Your task to perform on an android device: open app "WhatsApp Messenger" (install if not already installed) Image 0: 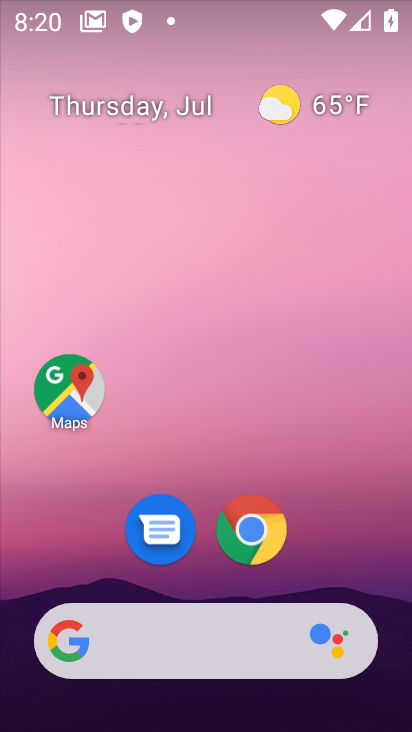
Step 0: drag from (343, 566) to (361, 40)
Your task to perform on an android device: open app "WhatsApp Messenger" (install if not already installed) Image 1: 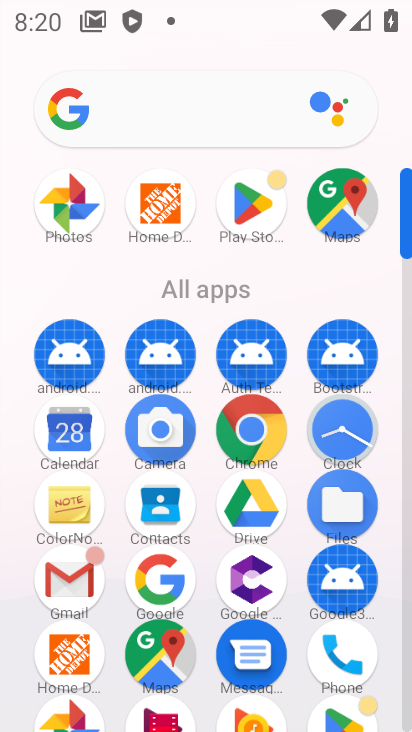
Step 1: click (242, 206)
Your task to perform on an android device: open app "WhatsApp Messenger" (install if not already installed) Image 2: 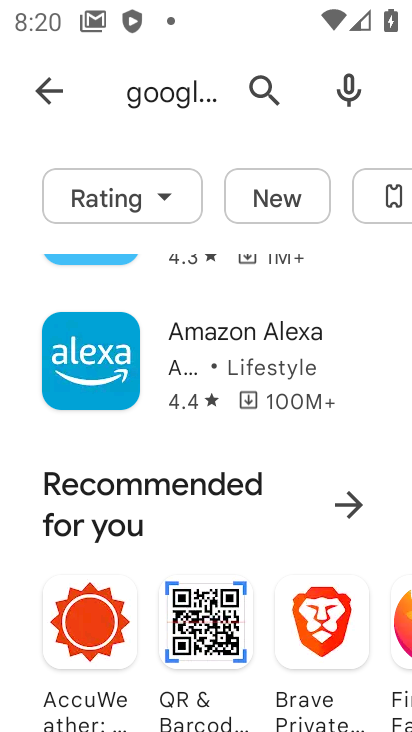
Step 2: click (253, 87)
Your task to perform on an android device: open app "WhatsApp Messenger" (install if not already installed) Image 3: 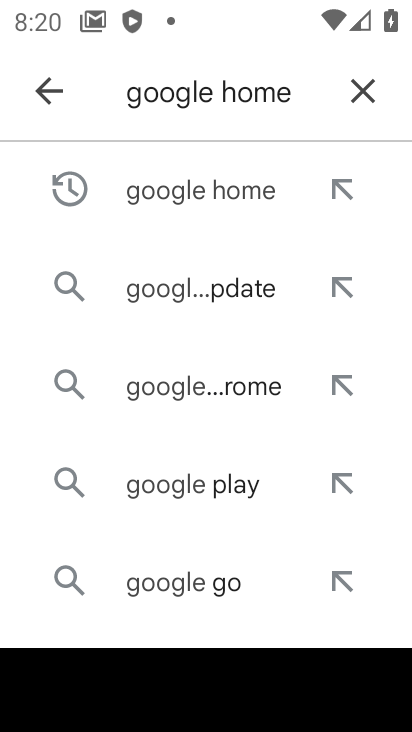
Step 3: click (347, 98)
Your task to perform on an android device: open app "WhatsApp Messenger" (install if not already installed) Image 4: 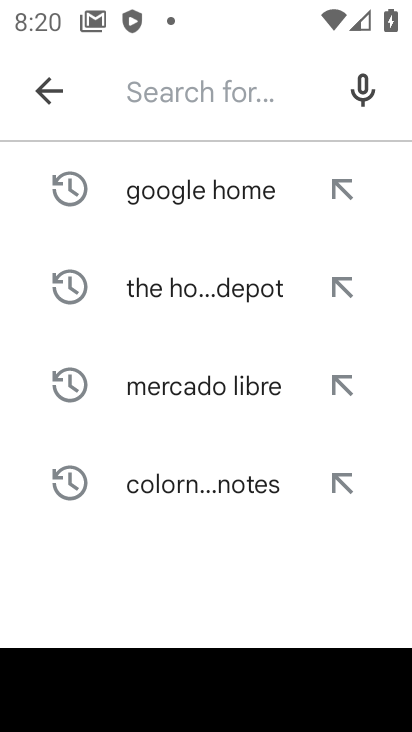
Step 4: type "WhatsApp Messenger"
Your task to perform on an android device: open app "WhatsApp Messenger" (install if not already installed) Image 5: 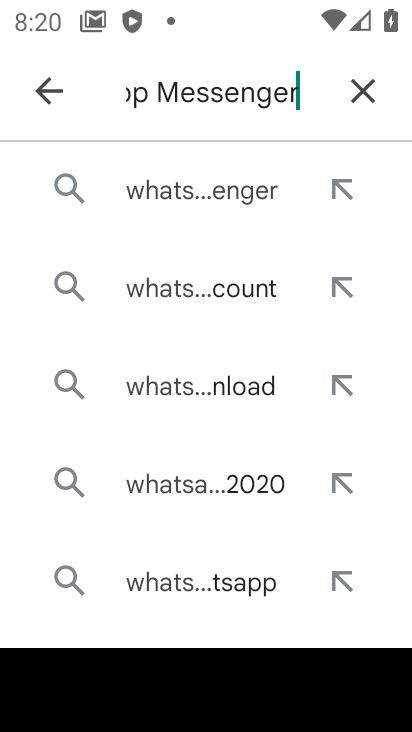
Step 5: click (173, 589)
Your task to perform on an android device: open app "WhatsApp Messenger" (install if not already installed) Image 6: 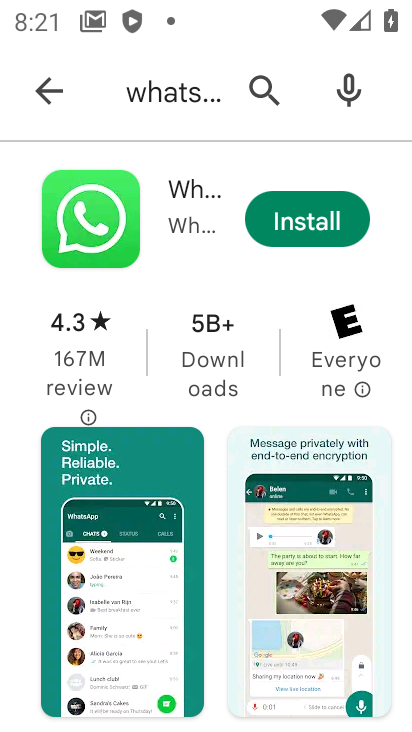
Step 6: click (304, 229)
Your task to perform on an android device: open app "WhatsApp Messenger" (install if not already installed) Image 7: 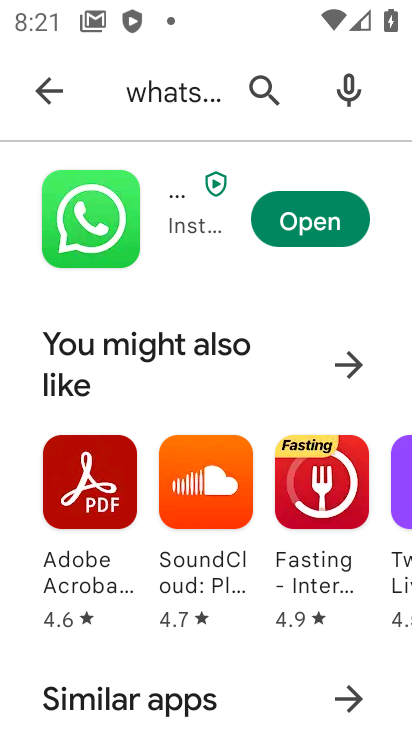
Step 7: click (301, 231)
Your task to perform on an android device: open app "WhatsApp Messenger" (install if not already installed) Image 8: 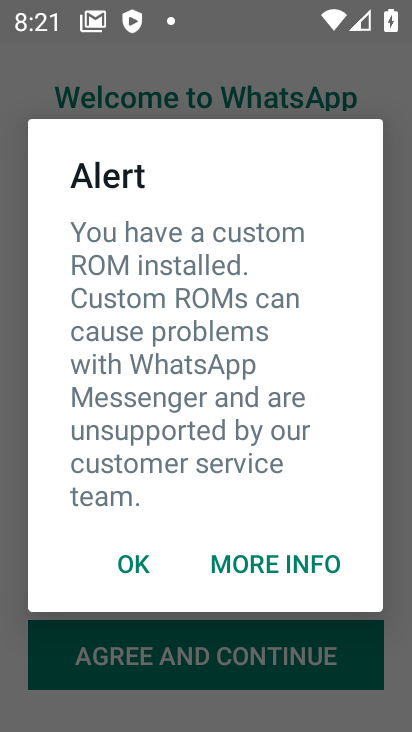
Step 8: task complete